Your task to perform on an android device: Open calendar and show me the first week of next month Image 0: 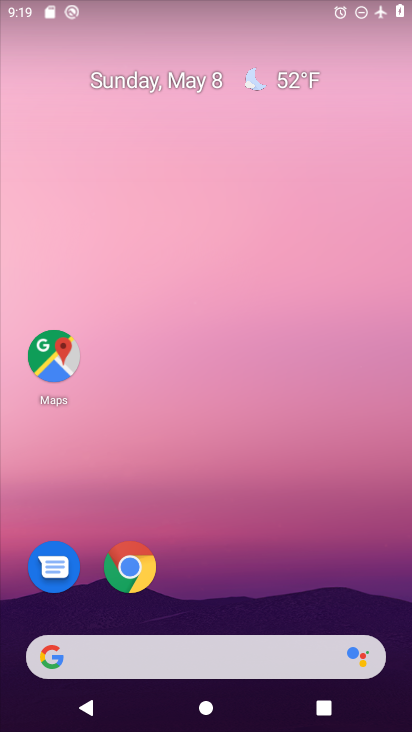
Step 0: drag from (340, 609) to (280, 110)
Your task to perform on an android device: Open calendar and show me the first week of next month Image 1: 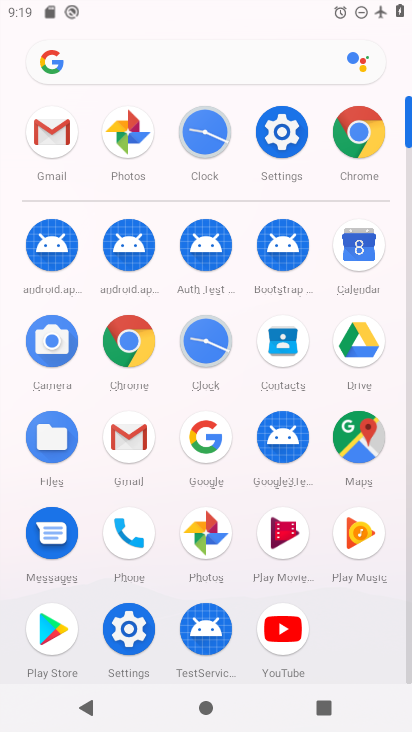
Step 1: click (363, 242)
Your task to perform on an android device: Open calendar and show me the first week of next month Image 2: 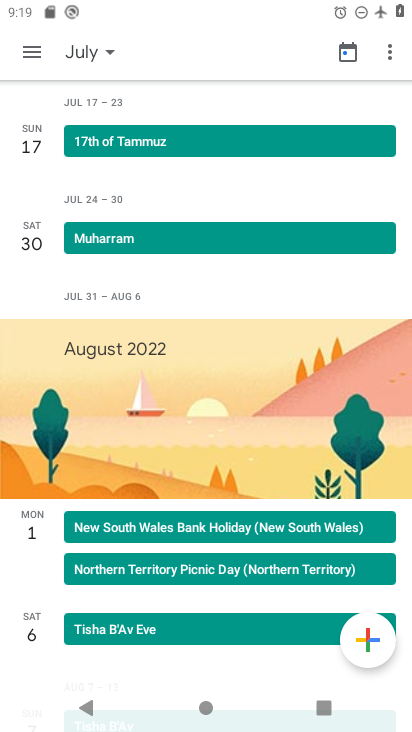
Step 2: click (90, 55)
Your task to perform on an android device: Open calendar and show me the first week of next month Image 3: 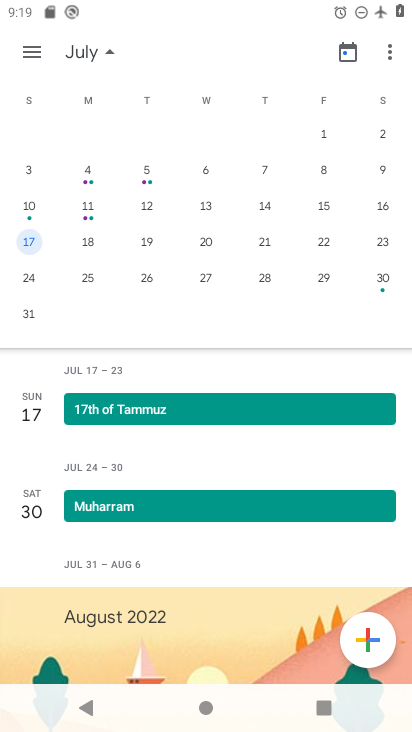
Step 3: drag from (358, 243) to (403, 728)
Your task to perform on an android device: Open calendar and show me the first week of next month Image 4: 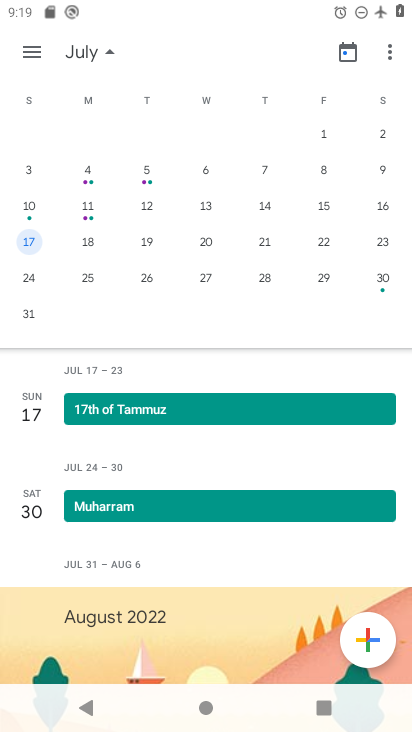
Step 4: click (129, 170)
Your task to perform on an android device: Open calendar and show me the first week of next month Image 5: 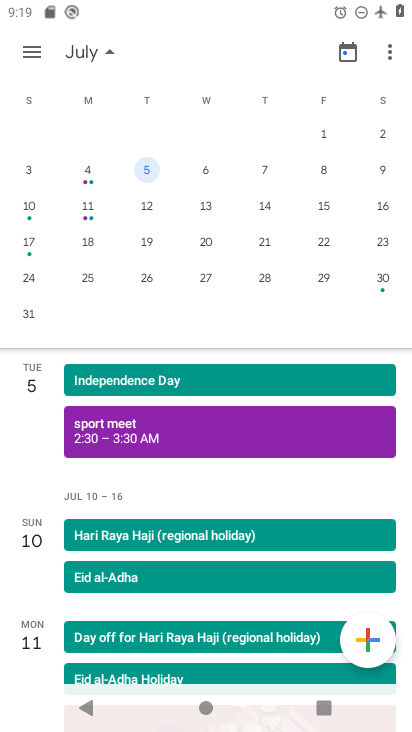
Step 5: task complete